Your task to perform on an android device: Play the last video I watched on Youtube Image 0: 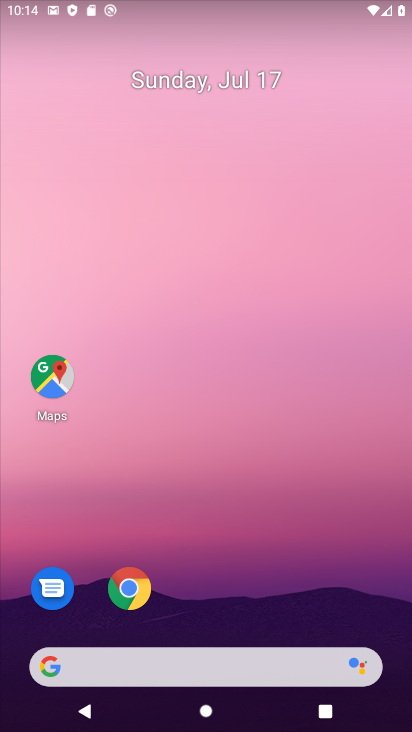
Step 0: drag from (252, 589) to (271, 65)
Your task to perform on an android device: Play the last video I watched on Youtube Image 1: 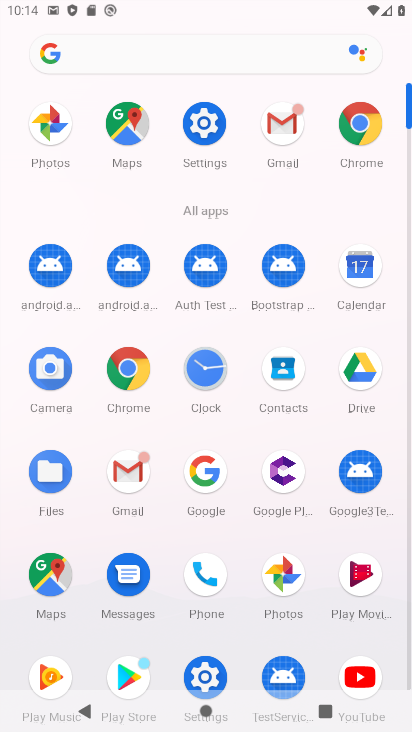
Step 1: click (364, 673)
Your task to perform on an android device: Play the last video I watched on Youtube Image 2: 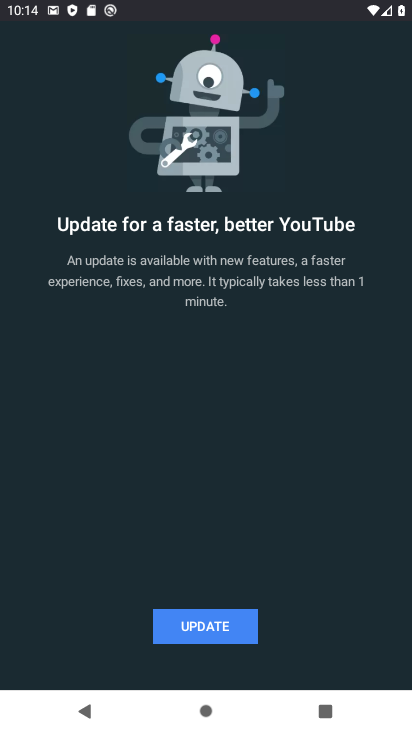
Step 2: click (238, 624)
Your task to perform on an android device: Play the last video I watched on Youtube Image 3: 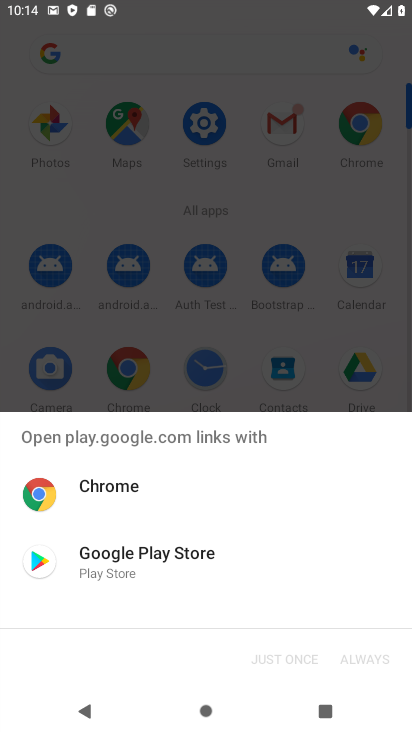
Step 3: click (184, 560)
Your task to perform on an android device: Play the last video I watched on Youtube Image 4: 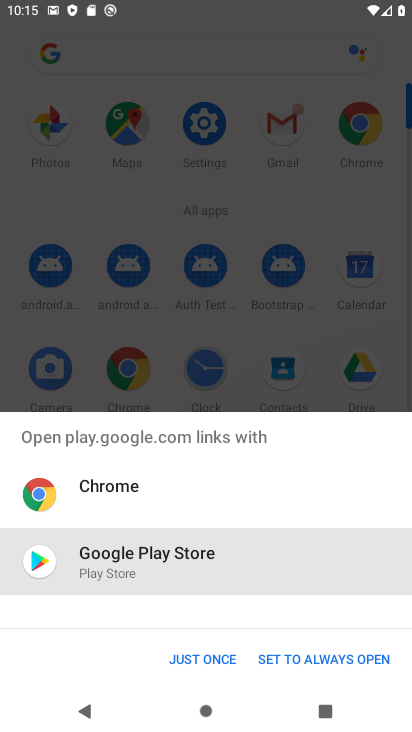
Step 4: click (208, 663)
Your task to perform on an android device: Play the last video I watched on Youtube Image 5: 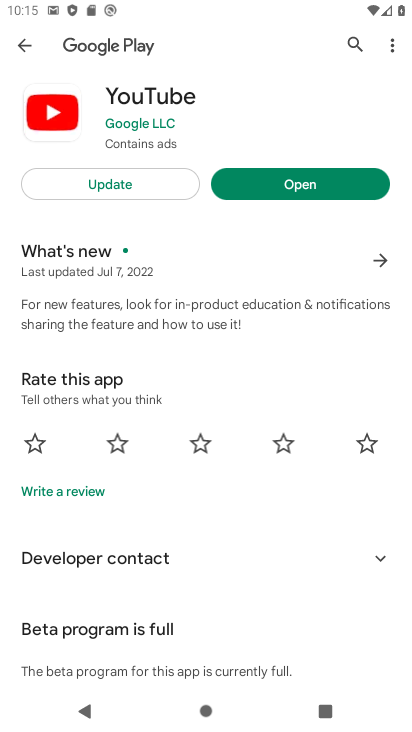
Step 5: click (165, 184)
Your task to perform on an android device: Play the last video I watched on Youtube Image 6: 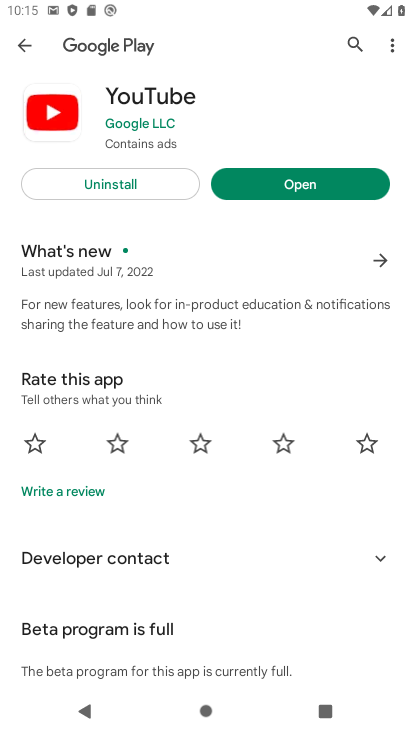
Step 6: click (317, 199)
Your task to perform on an android device: Play the last video I watched on Youtube Image 7: 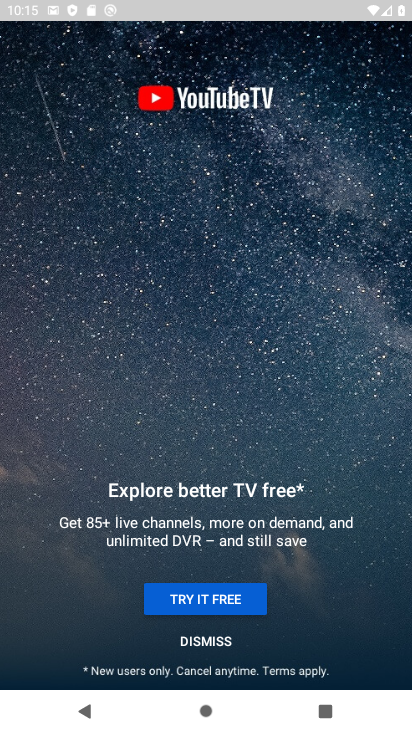
Step 7: click (185, 628)
Your task to perform on an android device: Play the last video I watched on Youtube Image 8: 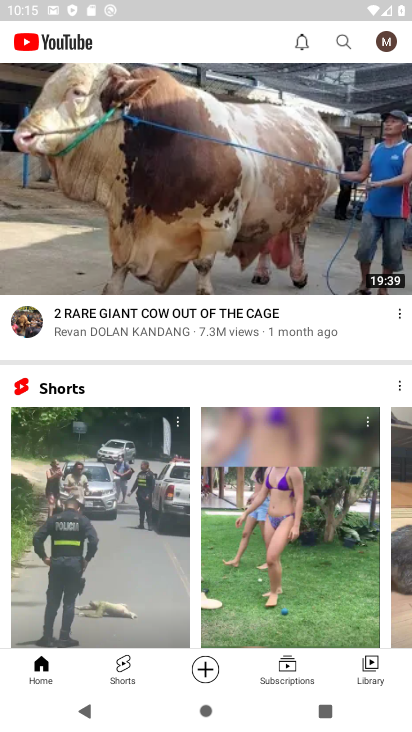
Step 8: click (369, 683)
Your task to perform on an android device: Play the last video I watched on Youtube Image 9: 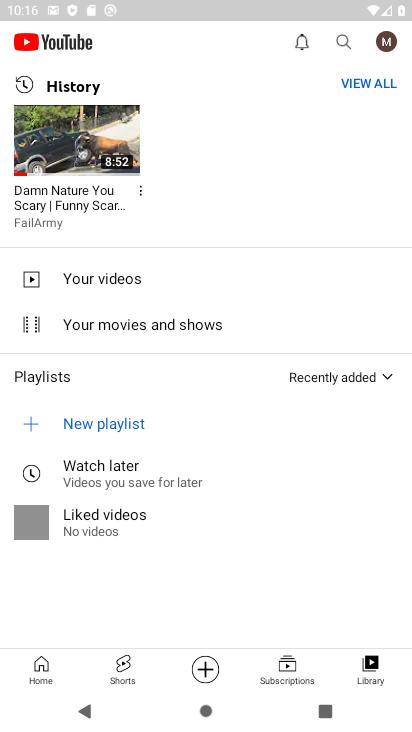
Step 9: click (69, 180)
Your task to perform on an android device: Play the last video I watched on Youtube Image 10: 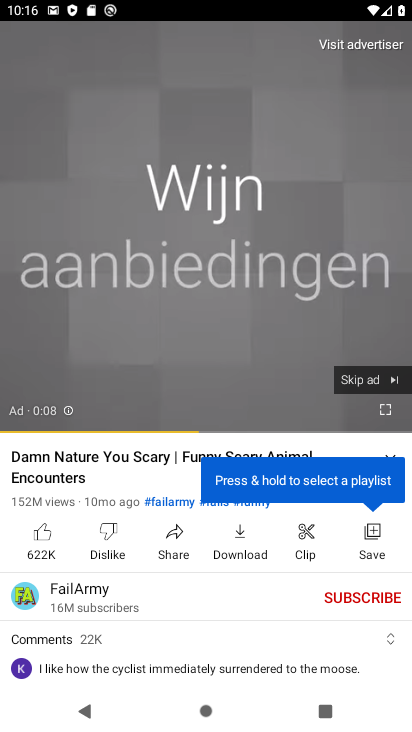
Step 10: click (363, 374)
Your task to perform on an android device: Play the last video I watched on Youtube Image 11: 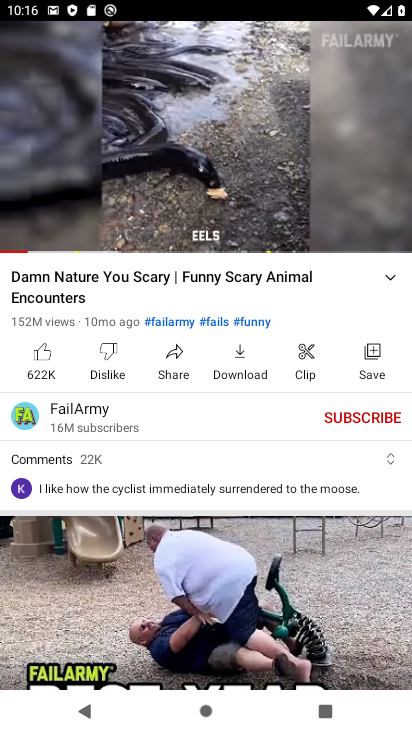
Step 11: task complete